Your task to perform on an android device: Go to calendar. Show me events next week Image 0: 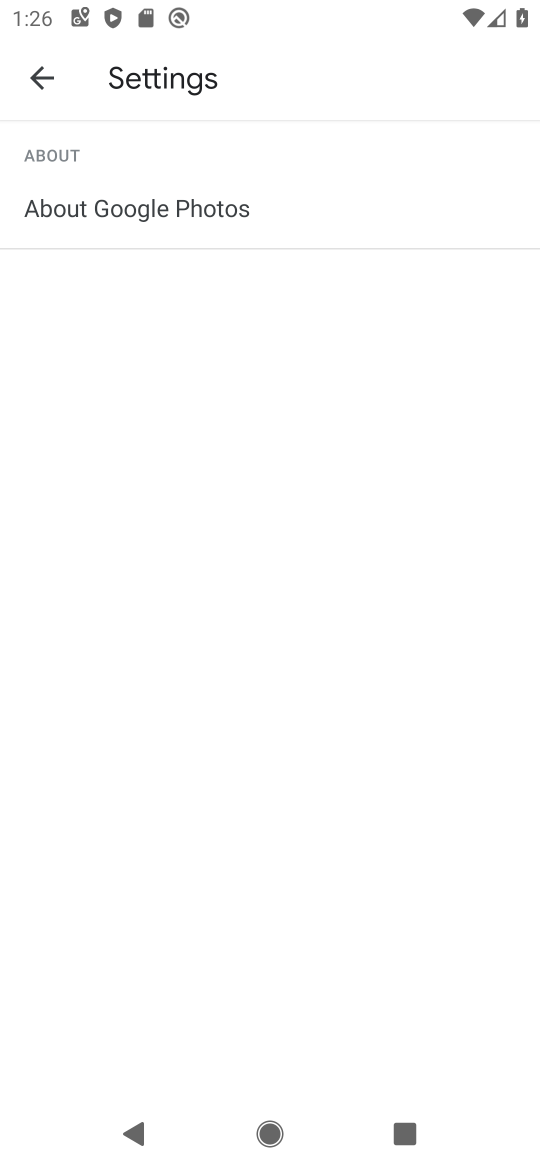
Step 0: press home button
Your task to perform on an android device: Go to calendar. Show me events next week Image 1: 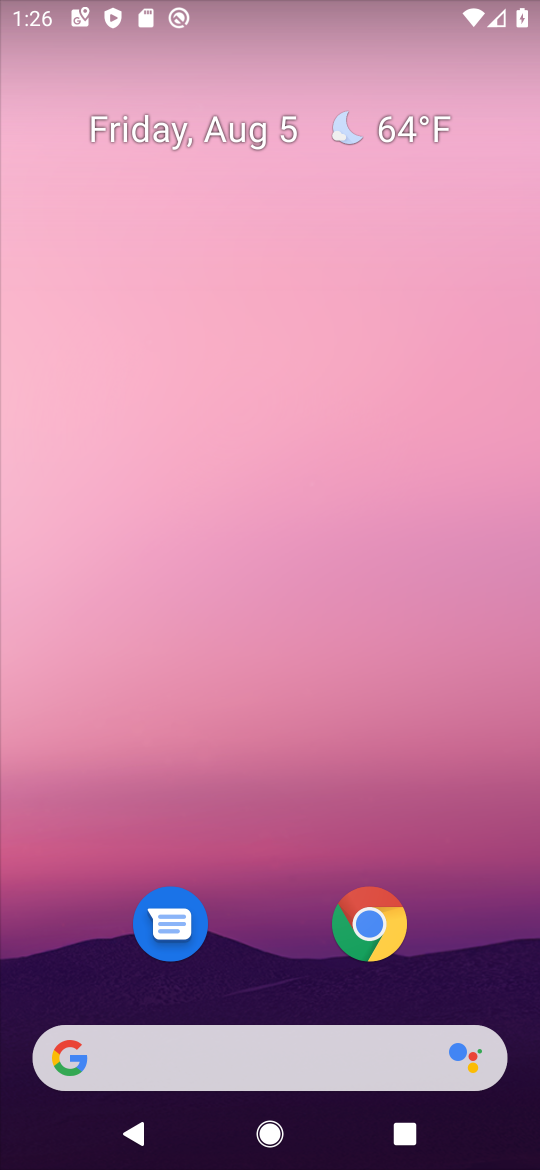
Step 1: drag from (249, 1065) to (306, 189)
Your task to perform on an android device: Go to calendar. Show me events next week Image 2: 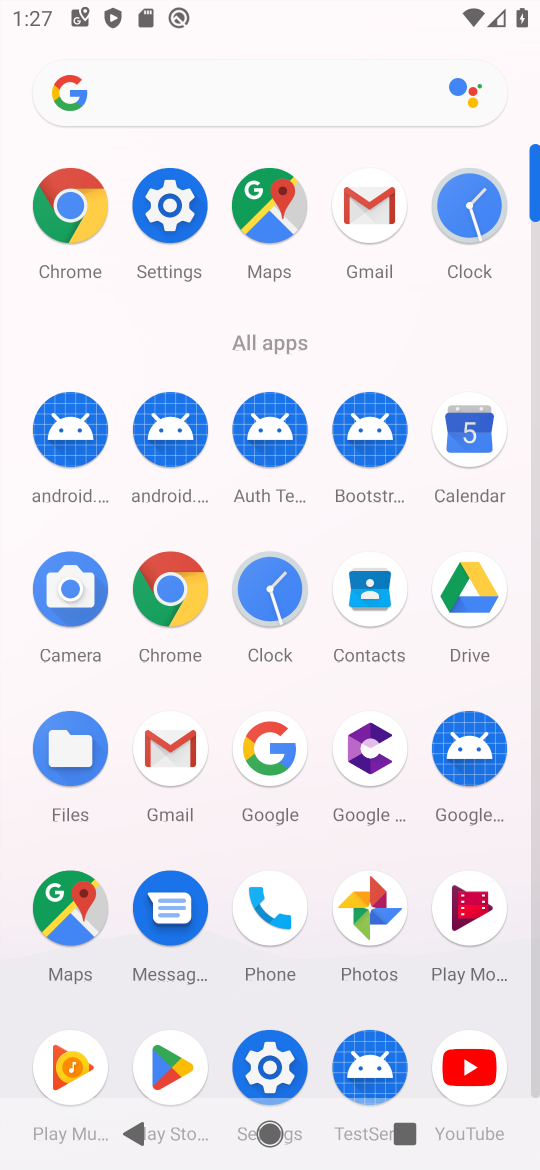
Step 2: click (471, 431)
Your task to perform on an android device: Go to calendar. Show me events next week Image 3: 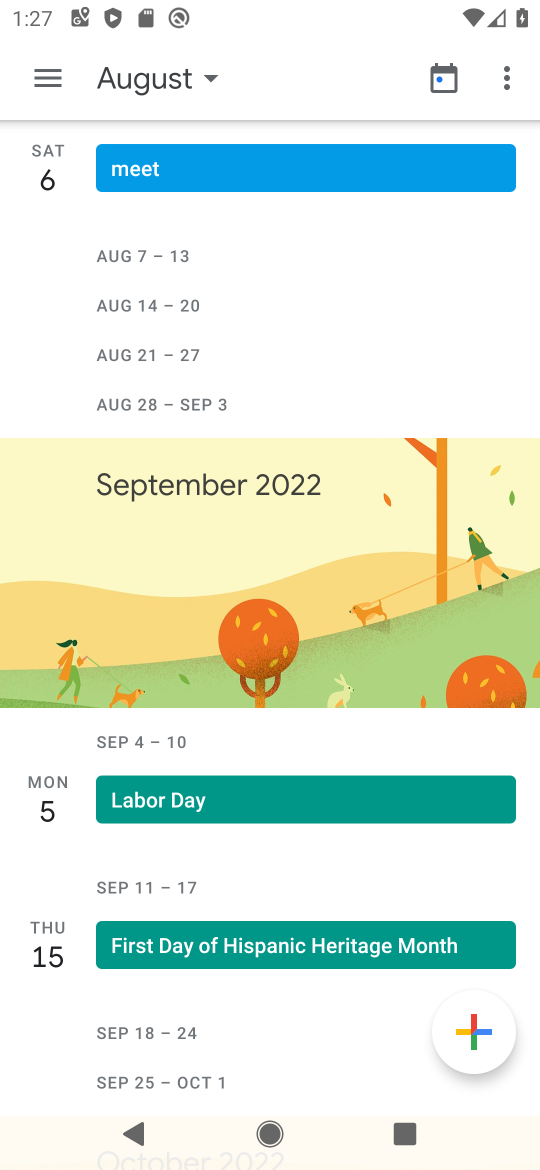
Step 3: click (446, 84)
Your task to perform on an android device: Go to calendar. Show me events next week Image 4: 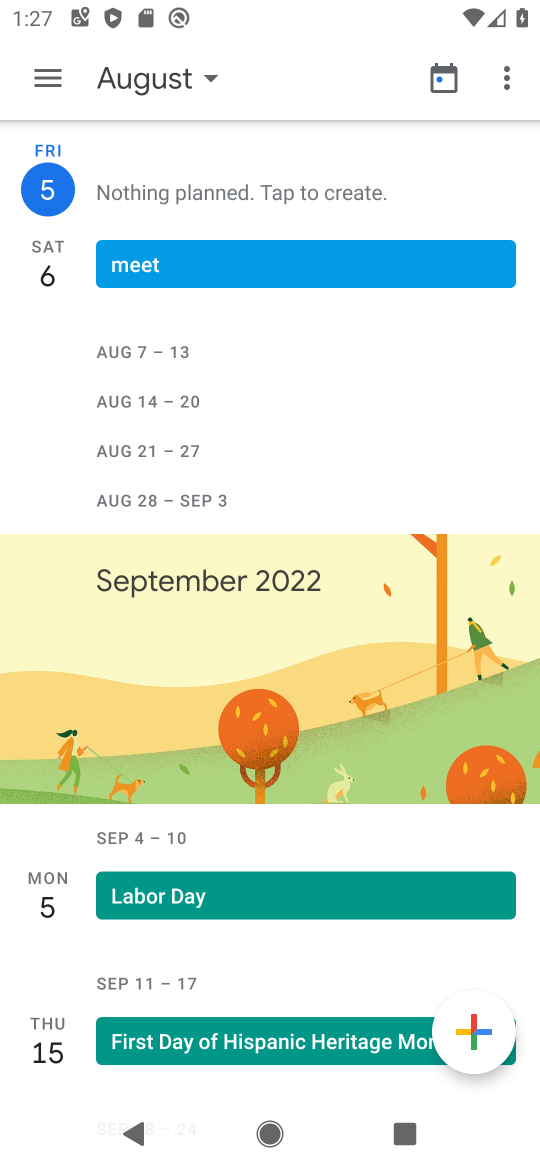
Step 4: click (203, 84)
Your task to perform on an android device: Go to calendar. Show me events next week Image 5: 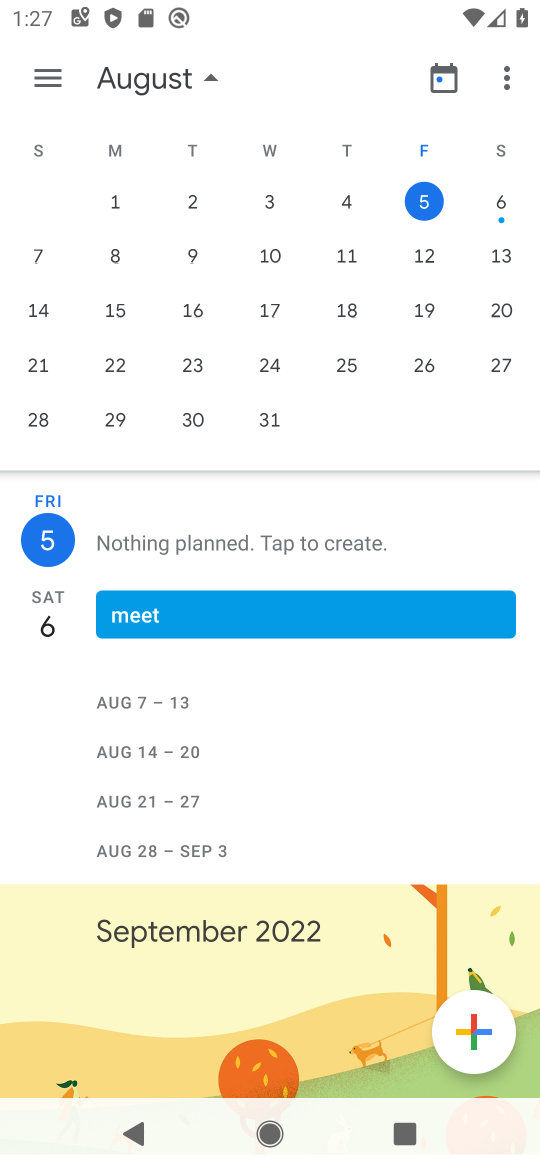
Step 5: click (119, 262)
Your task to perform on an android device: Go to calendar. Show me events next week Image 6: 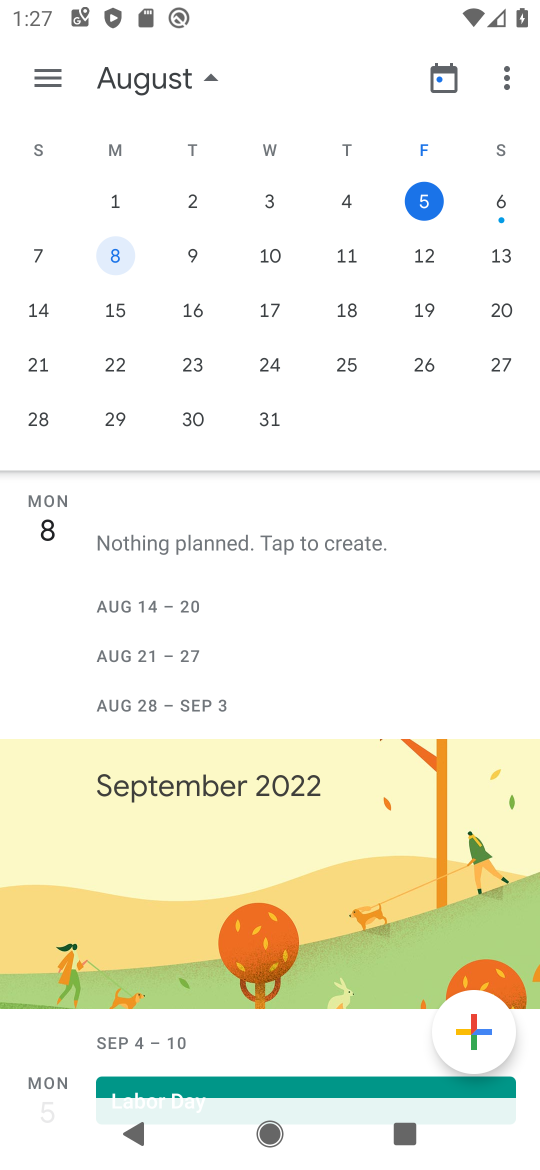
Step 6: click (113, 277)
Your task to perform on an android device: Go to calendar. Show me events next week Image 7: 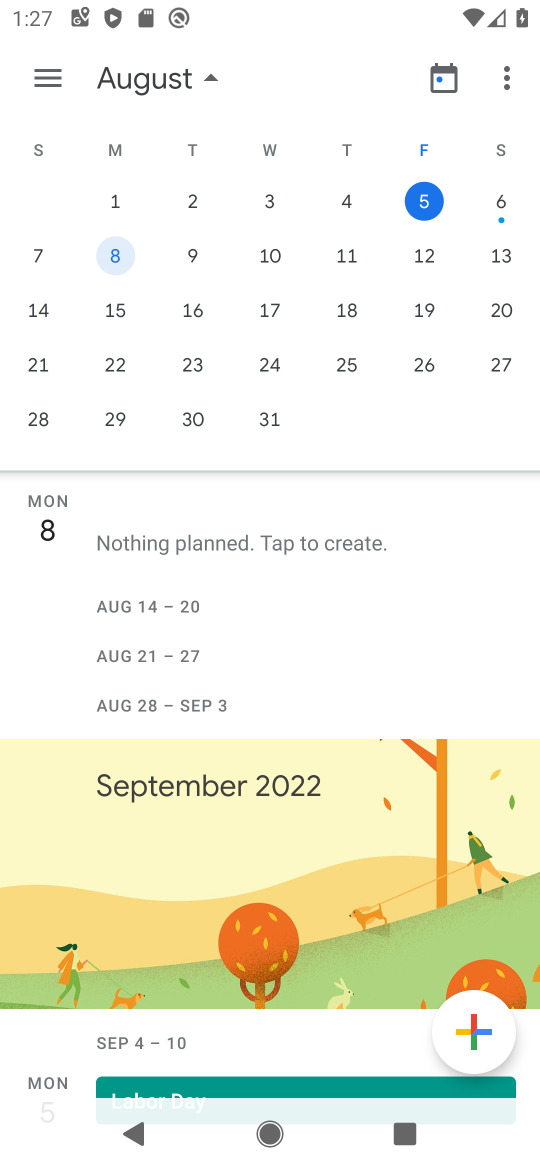
Step 7: click (51, 70)
Your task to perform on an android device: Go to calendar. Show me events next week Image 8: 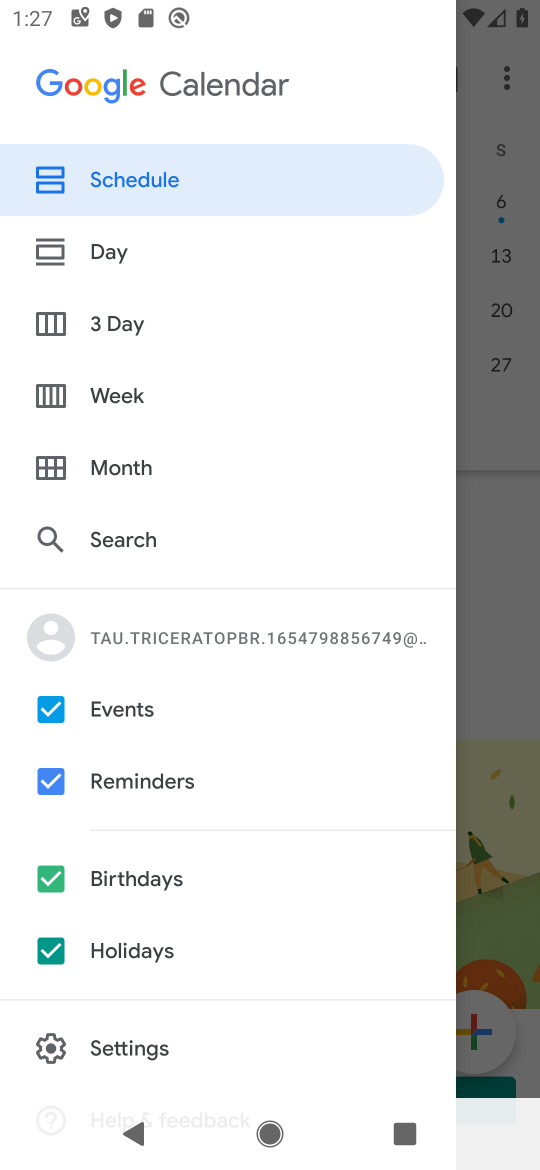
Step 8: click (124, 382)
Your task to perform on an android device: Go to calendar. Show me events next week Image 9: 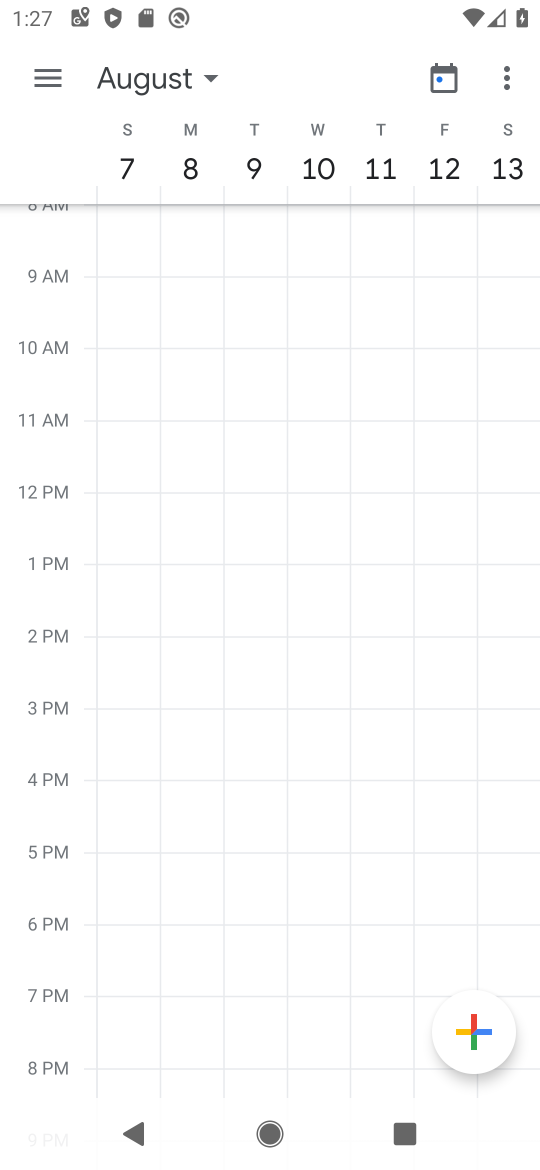
Step 9: task complete